Your task to perform on an android device: turn off location history Image 0: 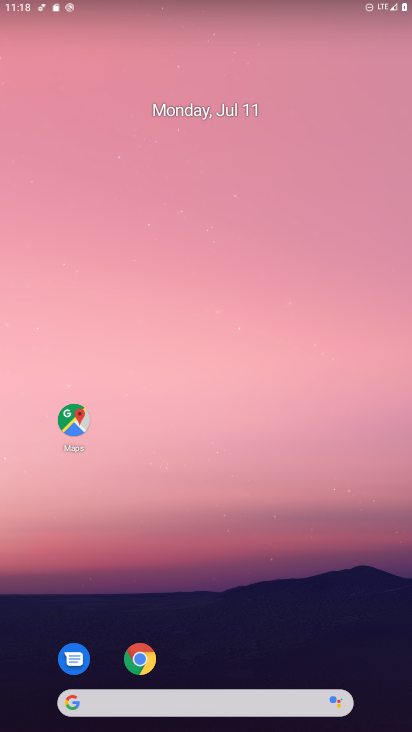
Step 0: drag from (285, 146) to (282, 104)
Your task to perform on an android device: turn off location history Image 1: 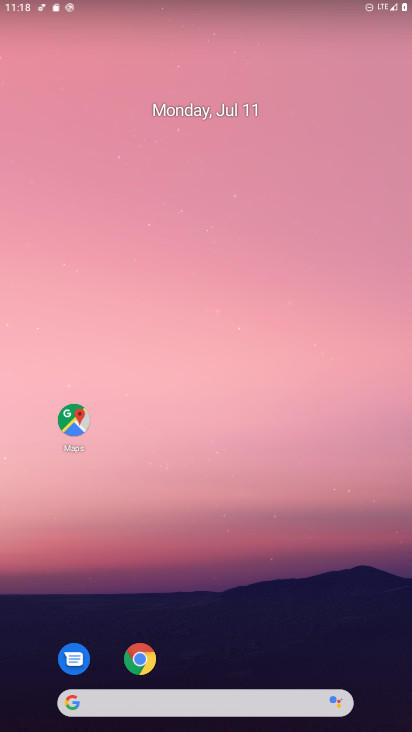
Step 1: drag from (257, 658) to (252, 227)
Your task to perform on an android device: turn off location history Image 2: 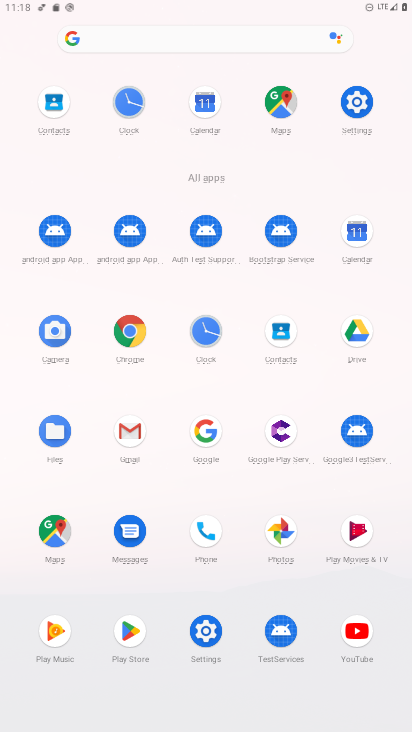
Step 2: click (59, 523)
Your task to perform on an android device: turn off location history Image 3: 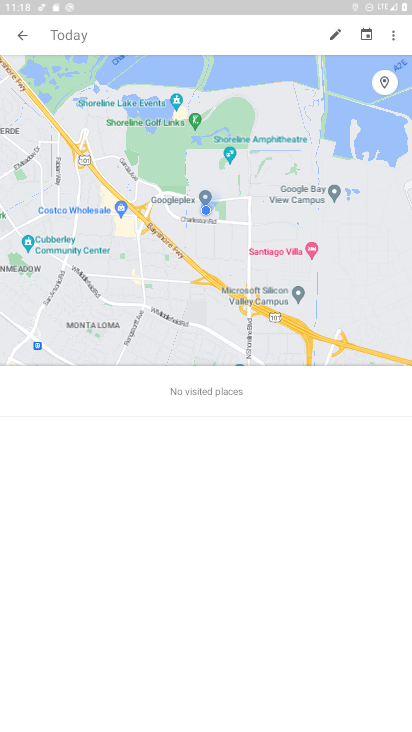
Step 3: click (397, 29)
Your task to perform on an android device: turn off location history Image 4: 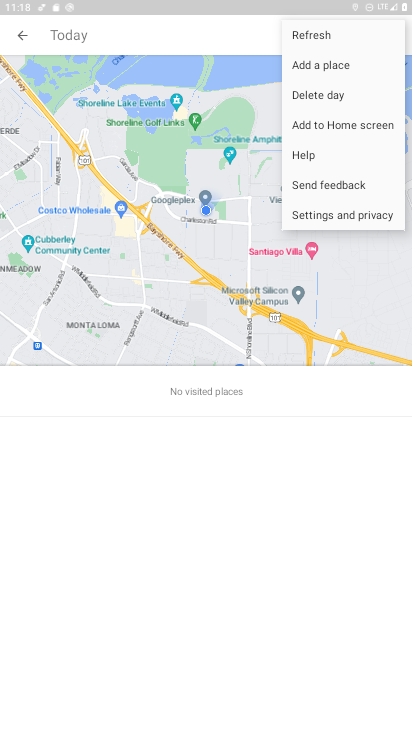
Step 4: click (351, 210)
Your task to perform on an android device: turn off location history Image 5: 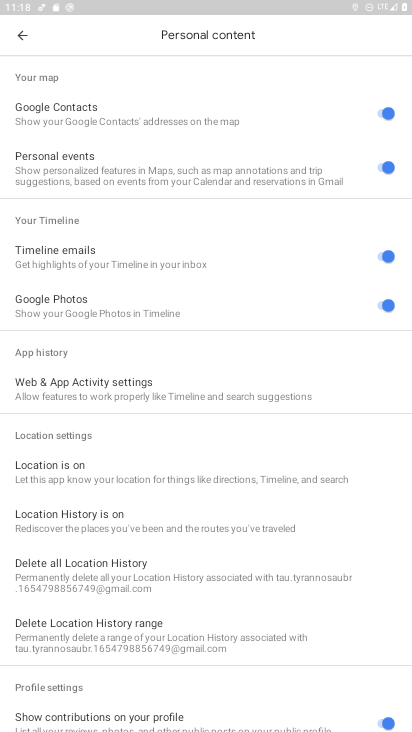
Step 5: click (293, 521)
Your task to perform on an android device: turn off location history Image 6: 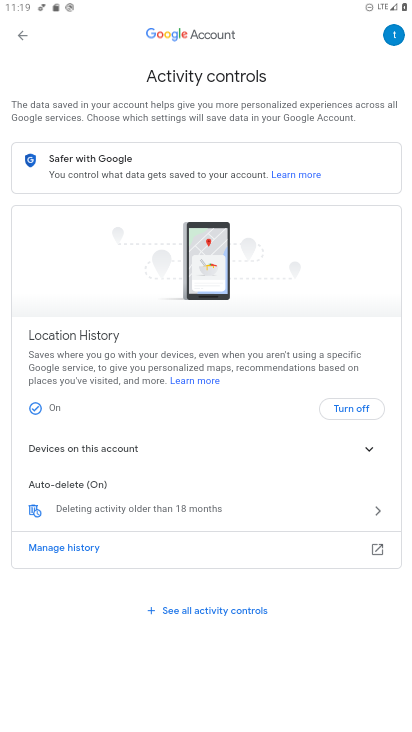
Step 6: click (361, 400)
Your task to perform on an android device: turn off location history Image 7: 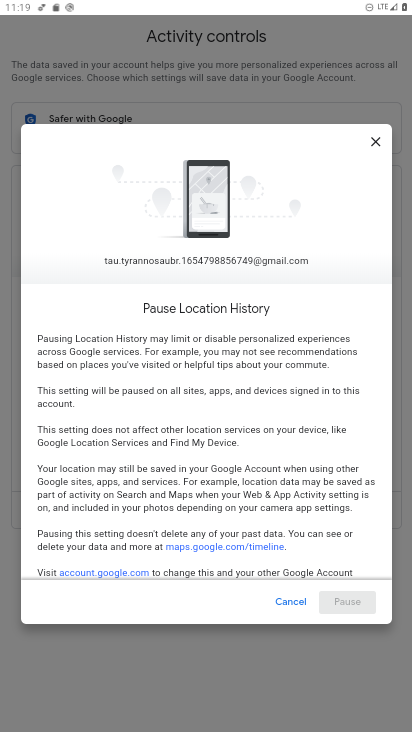
Step 7: drag from (345, 422) to (292, 45)
Your task to perform on an android device: turn off location history Image 8: 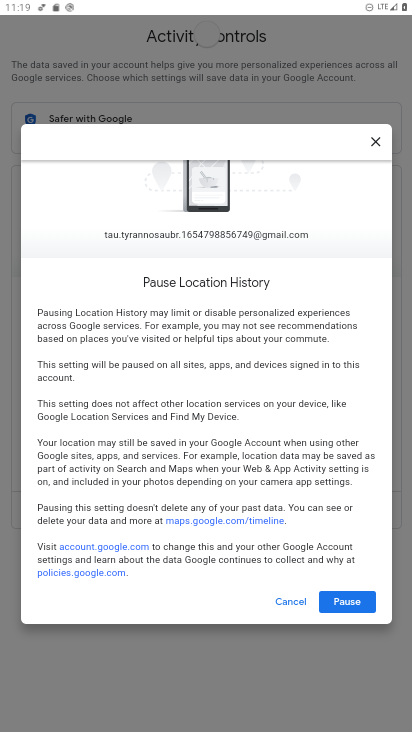
Step 8: drag from (319, 482) to (310, 361)
Your task to perform on an android device: turn off location history Image 9: 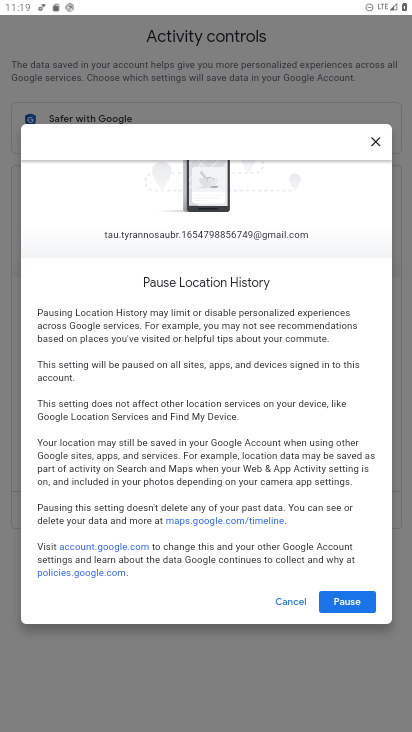
Step 9: click (347, 603)
Your task to perform on an android device: turn off location history Image 10: 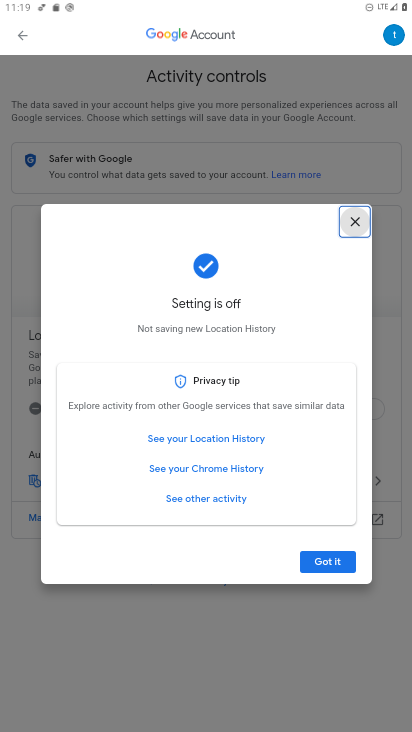
Step 10: click (337, 567)
Your task to perform on an android device: turn off location history Image 11: 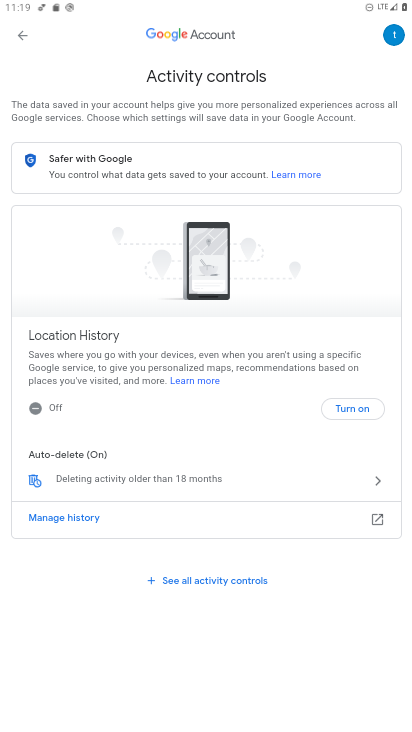
Step 11: task complete